Your task to perform on an android device: toggle airplane mode Image 0: 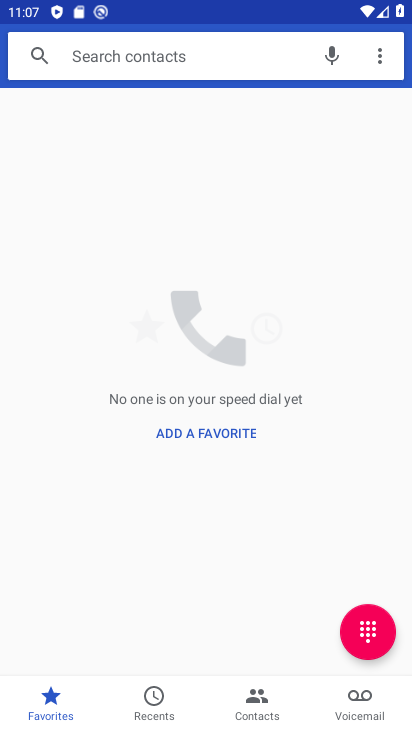
Step 0: press home button
Your task to perform on an android device: toggle airplane mode Image 1: 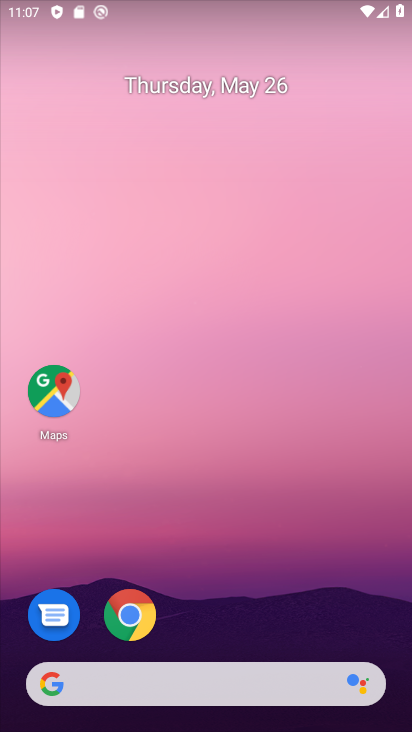
Step 1: drag from (288, 634) to (224, 77)
Your task to perform on an android device: toggle airplane mode Image 2: 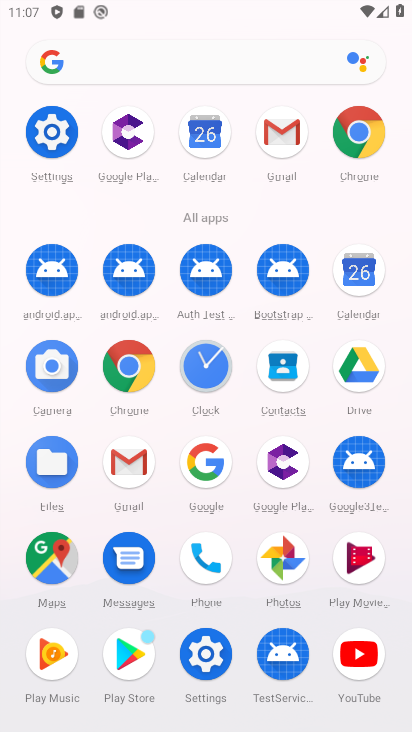
Step 2: drag from (380, 0) to (360, 639)
Your task to perform on an android device: toggle airplane mode Image 3: 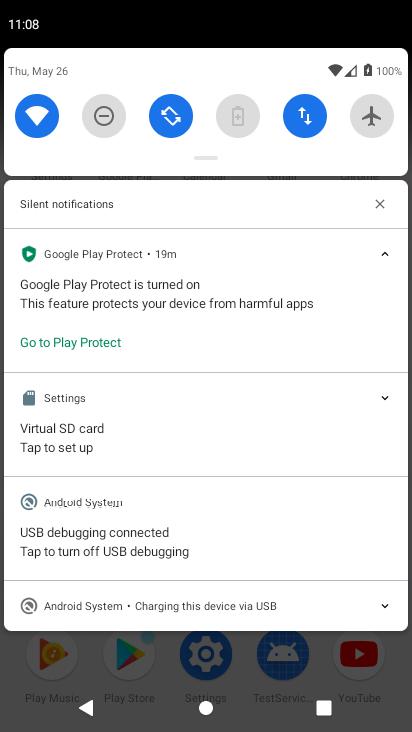
Step 3: click (365, 132)
Your task to perform on an android device: toggle airplane mode Image 4: 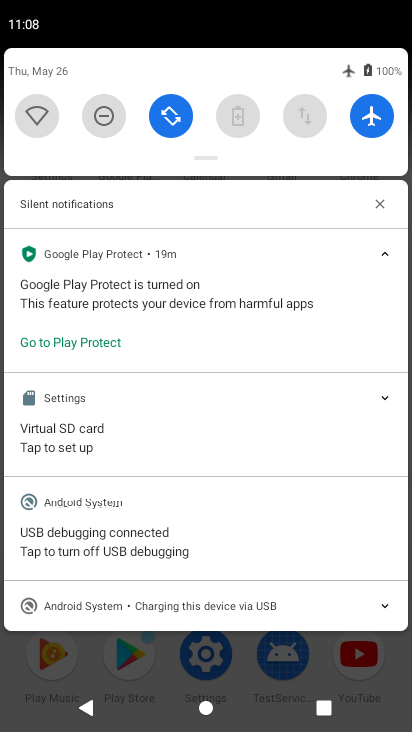
Step 4: task complete